Your task to perform on an android device: check storage Image 0: 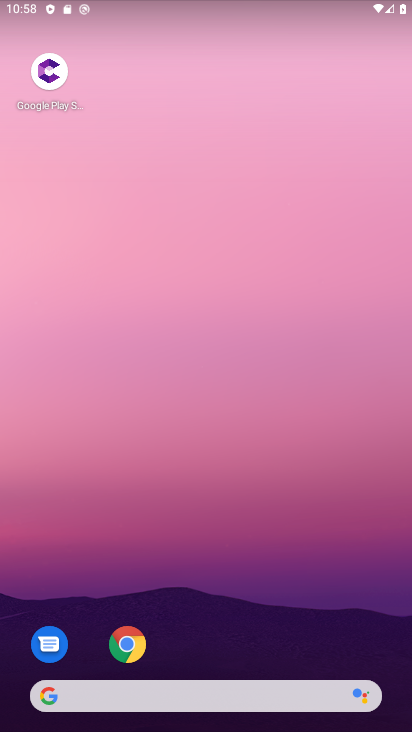
Step 0: click (331, 248)
Your task to perform on an android device: check storage Image 1: 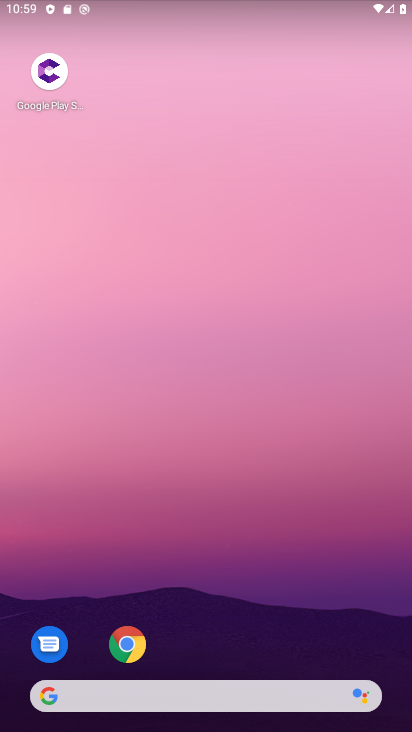
Step 1: drag from (281, 534) to (362, 43)
Your task to perform on an android device: check storage Image 2: 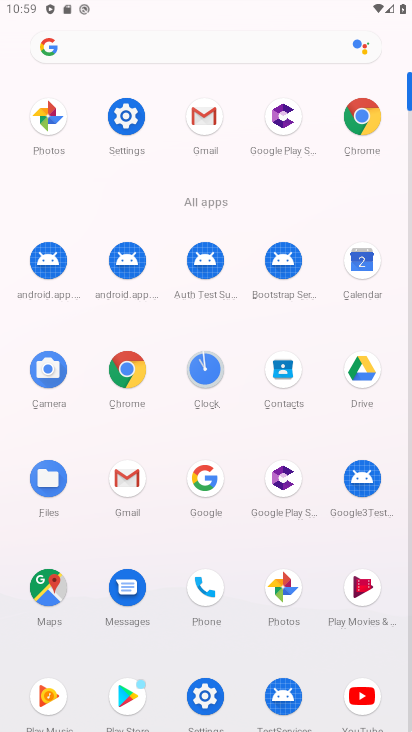
Step 2: click (208, 703)
Your task to perform on an android device: check storage Image 3: 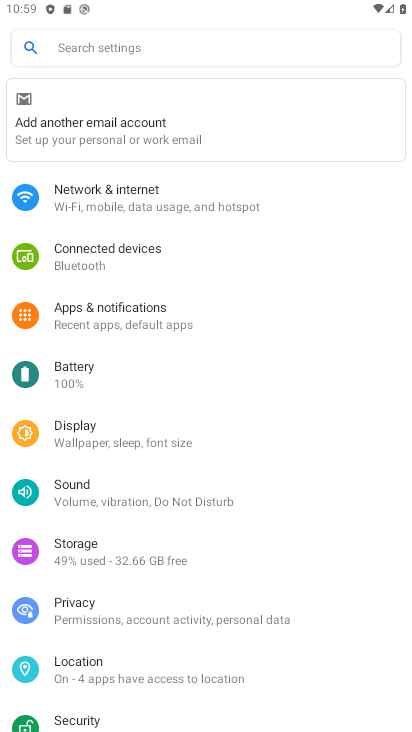
Step 3: click (147, 560)
Your task to perform on an android device: check storage Image 4: 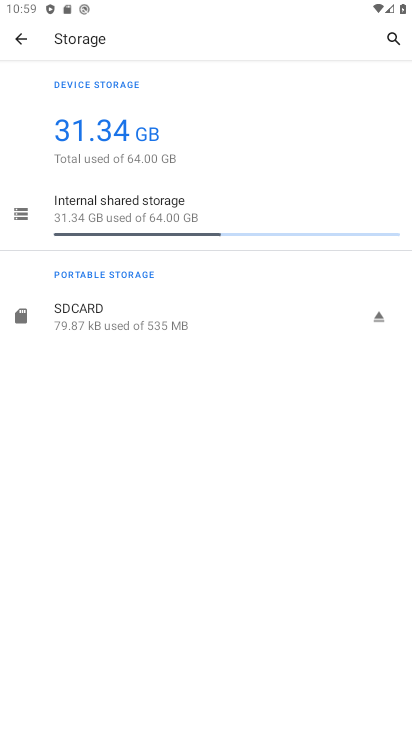
Step 4: task complete